Your task to perform on an android device: check data usage Image 0: 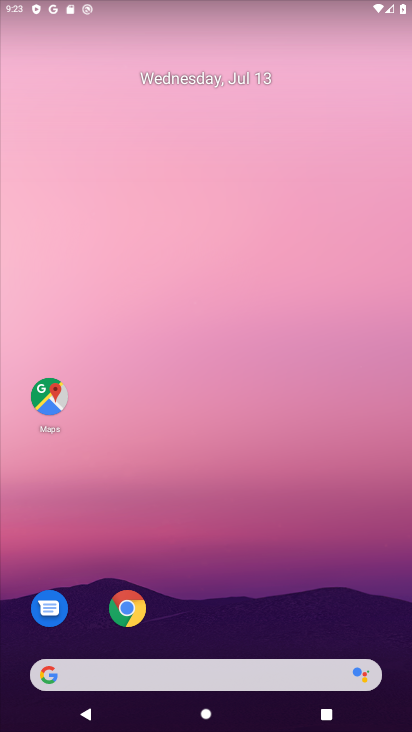
Step 0: drag from (164, 675) to (77, 271)
Your task to perform on an android device: check data usage Image 1: 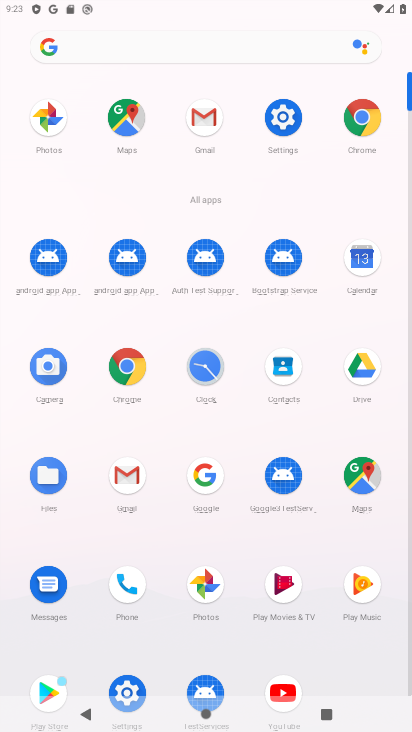
Step 1: click (272, 113)
Your task to perform on an android device: check data usage Image 2: 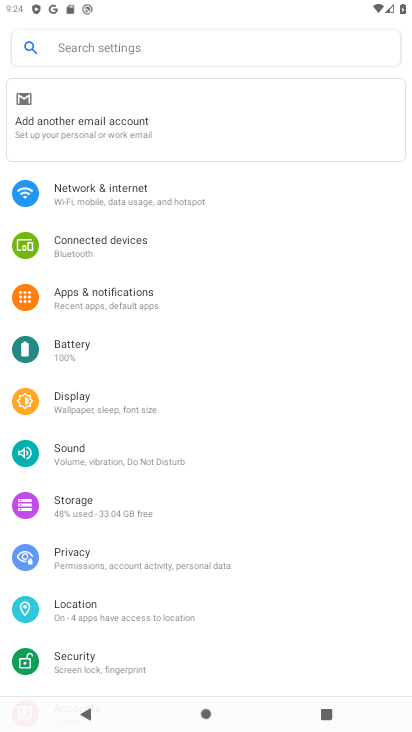
Step 2: click (120, 192)
Your task to perform on an android device: check data usage Image 3: 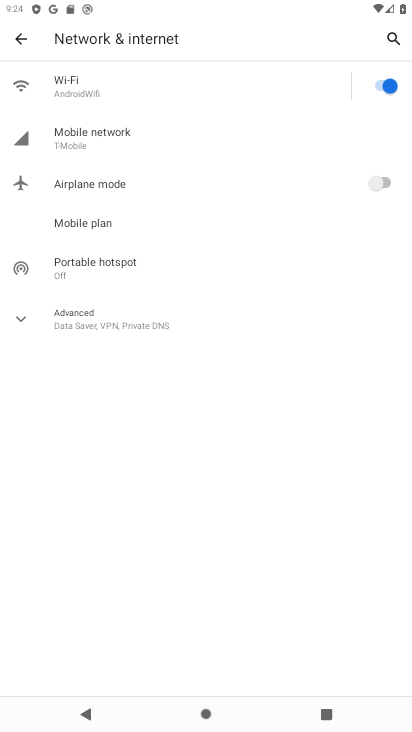
Step 3: click (101, 139)
Your task to perform on an android device: check data usage Image 4: 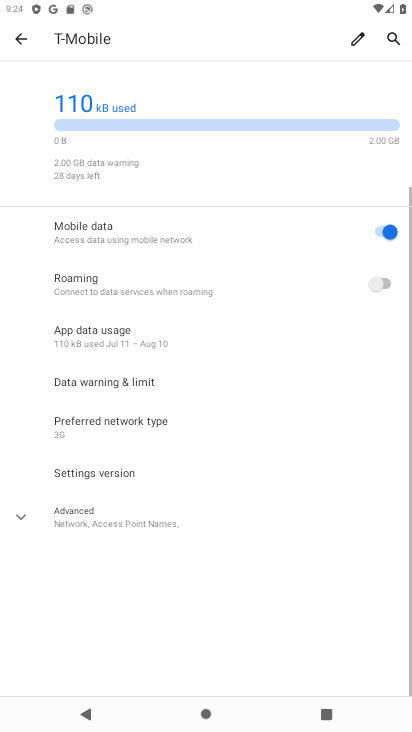
Step 4: task complete